Your task to perform on an android device: Go to Google maps Image 0: 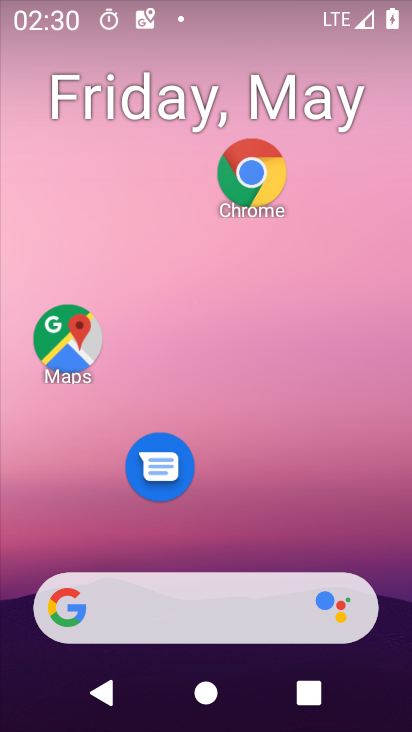
Step 0: drag from (277, 609) to (328, 211)
Your task to perform on an android device: Go to Google maps Image 1: 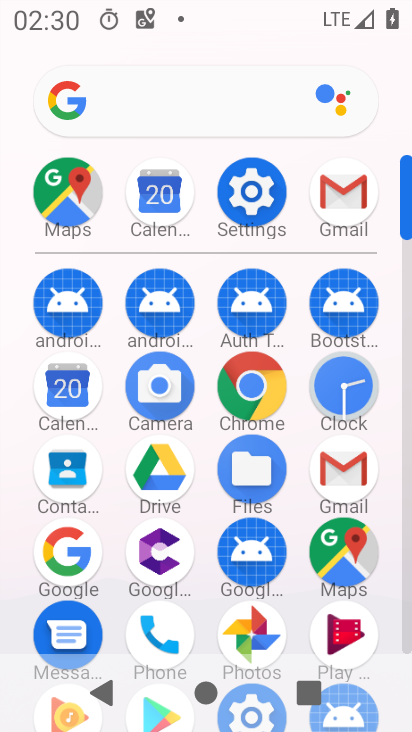
Step 1: click (72, 232)
Your task to perform on an android device: Go to Google maps Image 2: 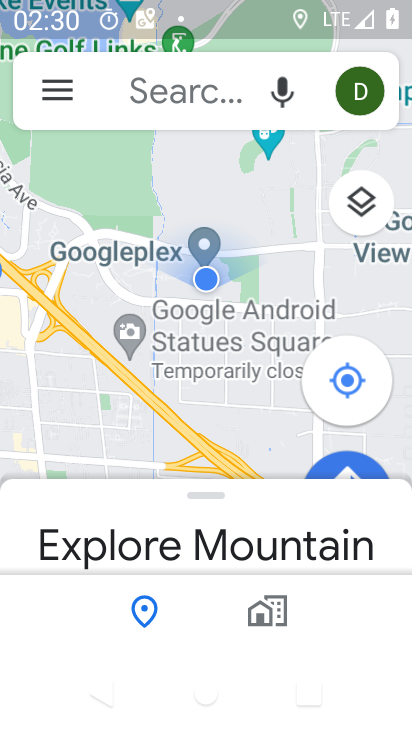
Step 2: click (159, 393)
Your task to perform on an android device: Go to Google maps Image 3: 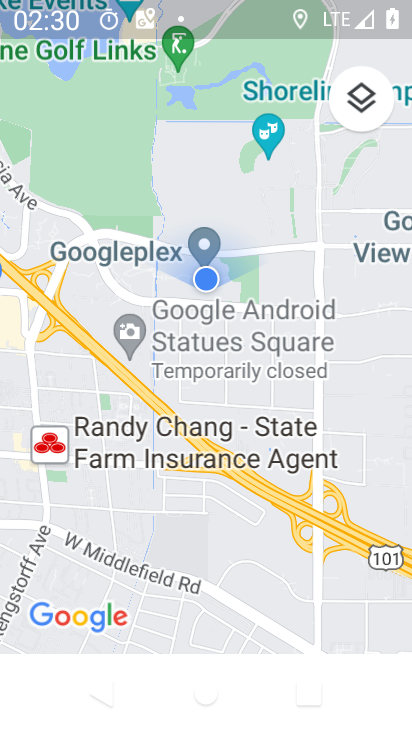
Step 3: task complete